Your task to perform on an android device: open the mobile data screen to see how much data has been used Image 0: 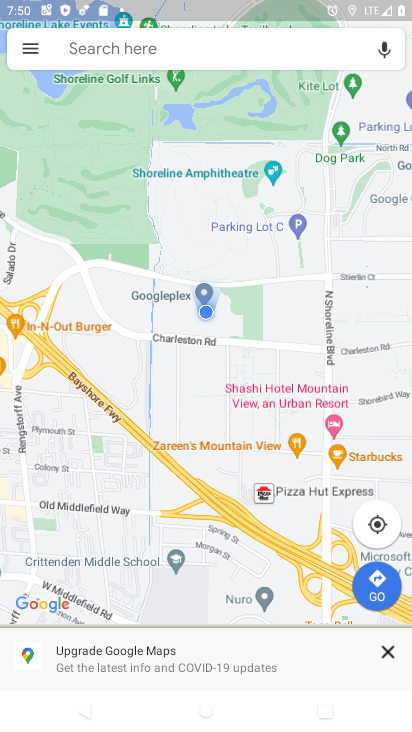
Step 0: press home button
Your task to perform on an android device: open the mobile data screen to see how much data has been used Image 1: 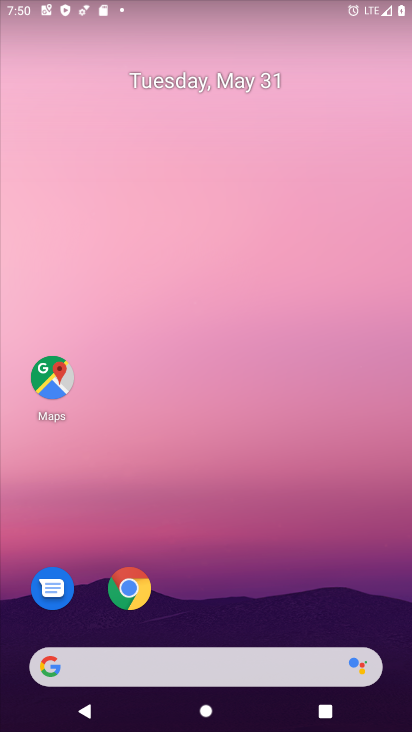
Step 1: drag from (187, 635) to (235, 262)
Your task to perform on an android device: open the mobile data screen to see how much data has been used Image 2: 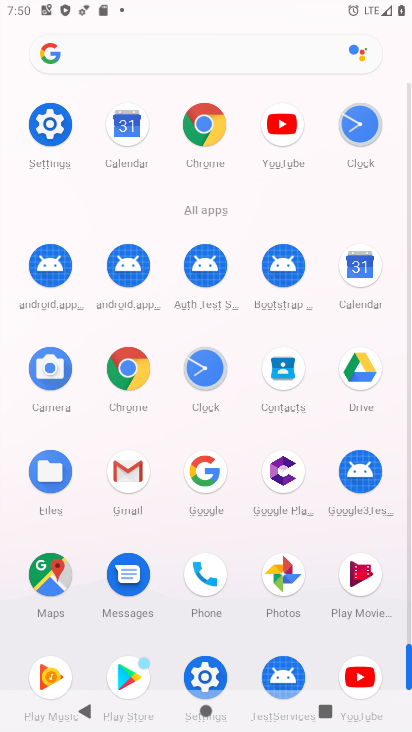
Step 2: click (59, 134)
Your task to perform on an android device: open the mobile data screen to see how much data has been used Image 3: 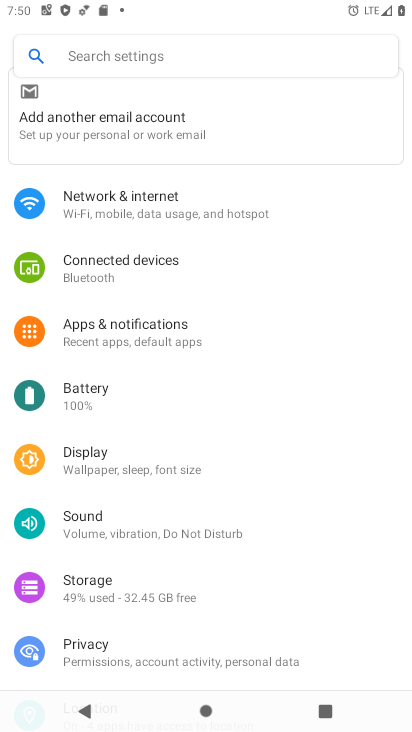
Step 3: click (167, 207)
Your task to perform on an android device: open the mobile data screen to see how much data has been used Image 4: 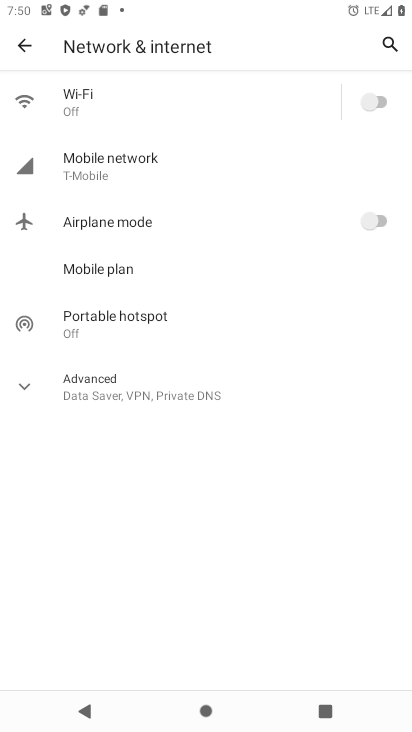
Step 4: click (143, 159)
Your task to perform on an android device: open the mobile data screen to see how much data has been used Image 5: 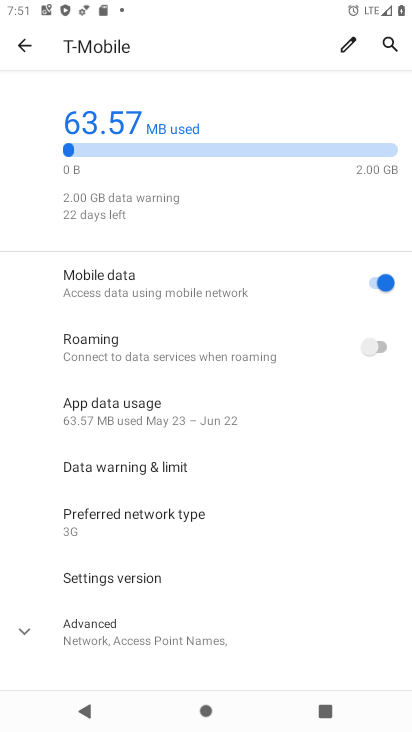
Step 5: click (141, 427)
Your task to perform on an android device: open the mobile data screen to see how much data has been used Image 6: 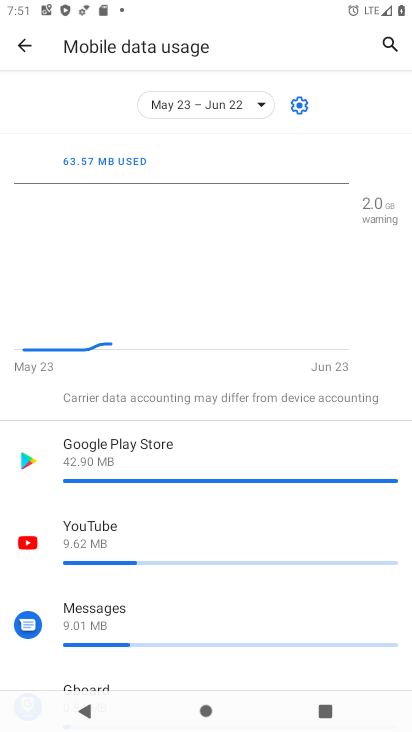
Step 6: task complete